Your task to perform on an android device: Go to calendar. Show me events next week Image 0: 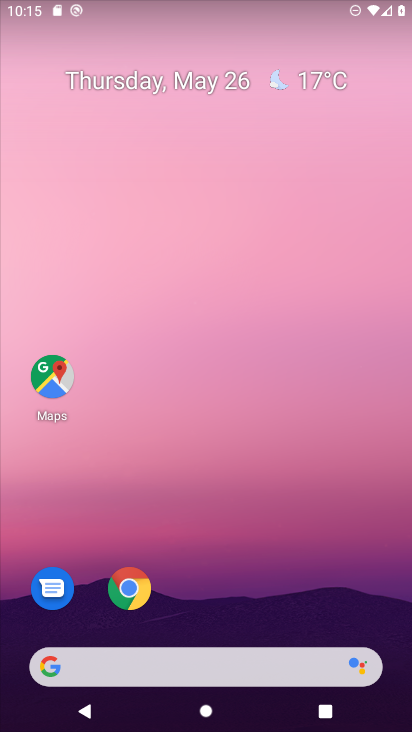
Step 0: drag from (324, 621) to (256, 251)
Your task to perform on an android device: Go to calendar. Show me events next week Image 1: 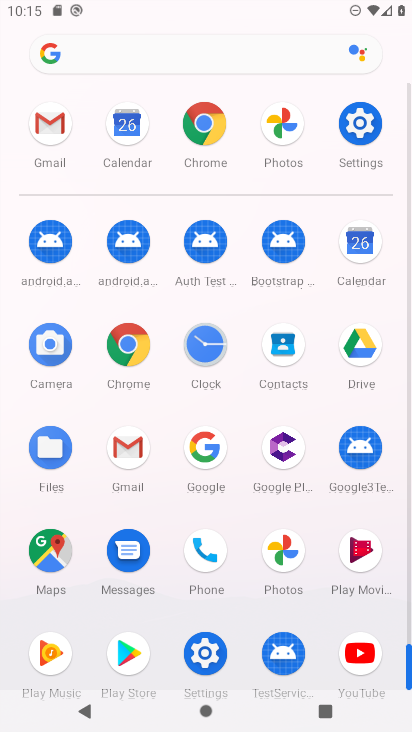
Step 1: click (358, 241)
Your task to perform on an android device: Go to calendar. Show me events next week Image 2: 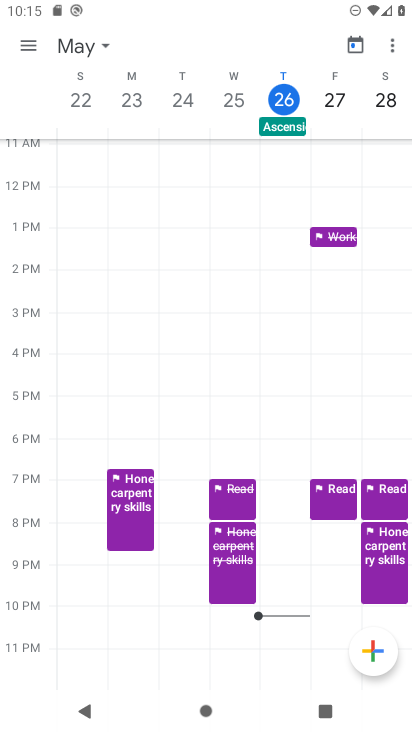
Step 2: click (36, 48)
Your task to perform on an android device: Go to calendar. Show me events next week Image 3: 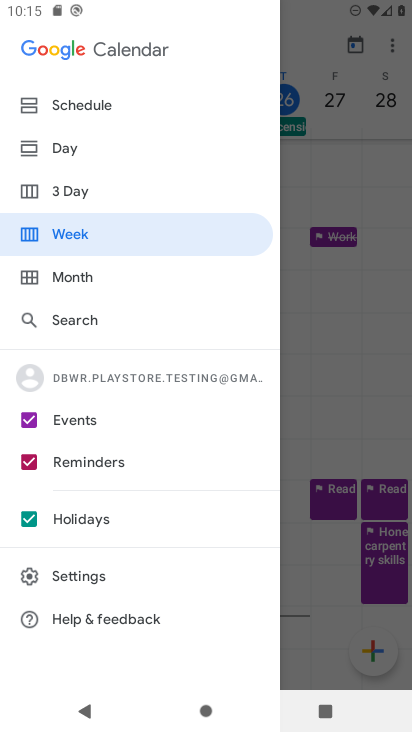
Step 3: click (83, 227)
Your task to perform on an android device: Go to calendar. Show me events next week Image 4: 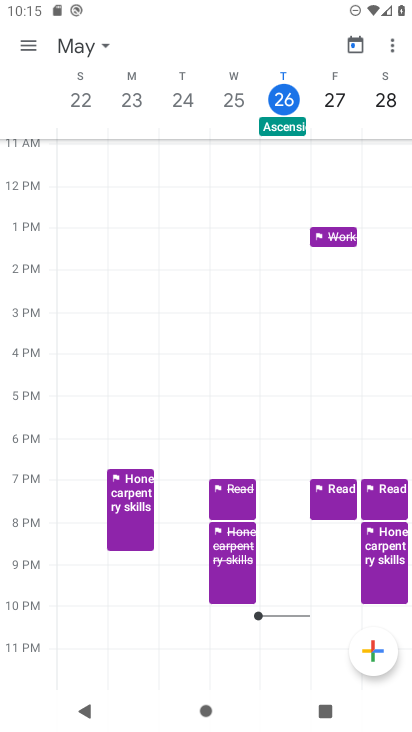
Step 4: click (100, 46)
Your task to perform on an android device: Go to calendar. Show me events next week Image 5: 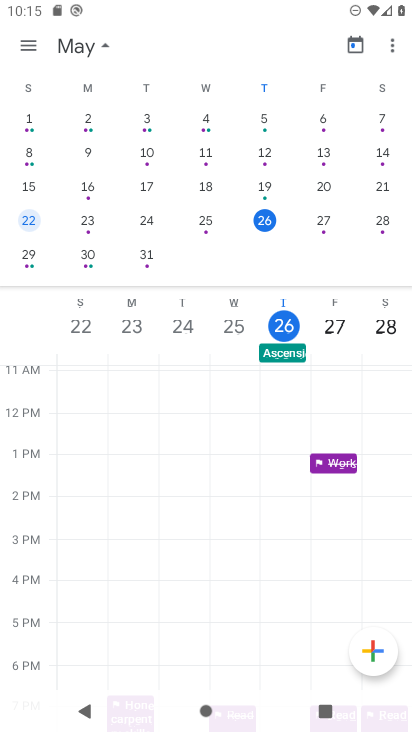
Step 5: click (28, 253)
Your task to perform on an android device: Go to calendar. Show me events next week Image 6: 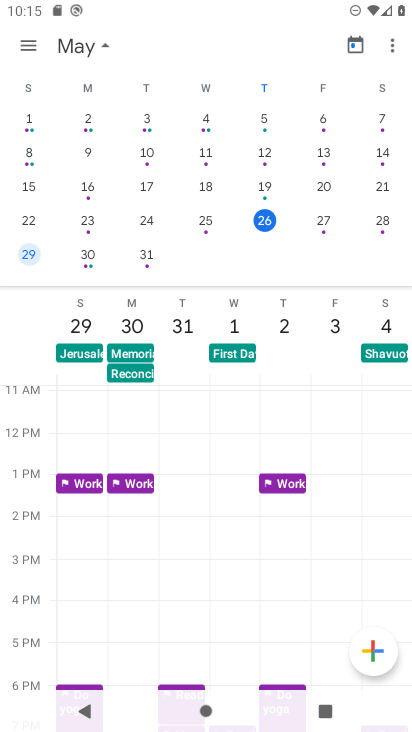
Step 6: task complete